Your task to perform on an android device: Open Google Maps Image 0: 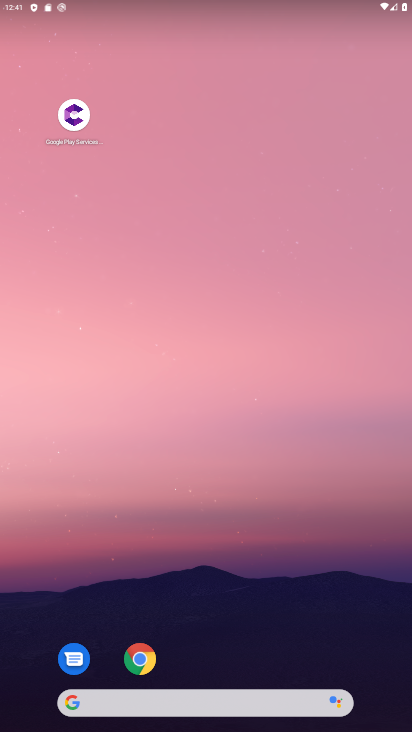
Step 0: drag from (331, 644) to (133, 57)
Your task to perform on an android device: Open Google Maps Image 1: 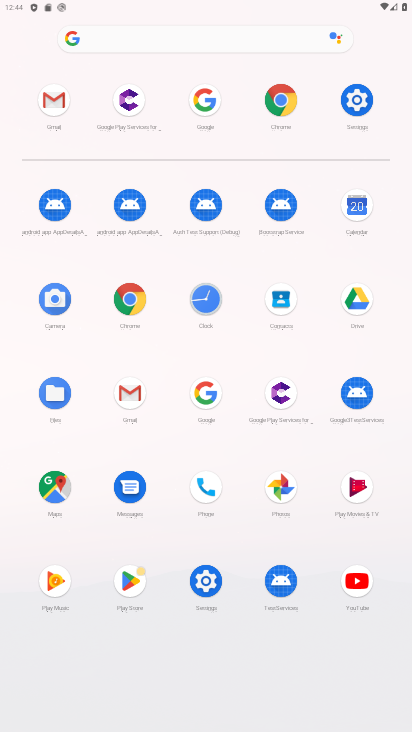
Step 1: click (64, 483)
Your task to perform on an android device: Open Google Maps Image 2: 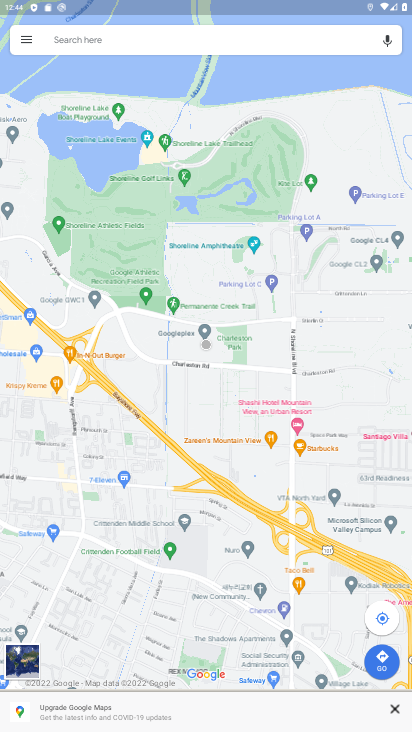
Step 2: task complete